Your task to perform on an android device: Clear the cart on target. Add "logitech g933" to the cart on target, then select checkout. Image 0: 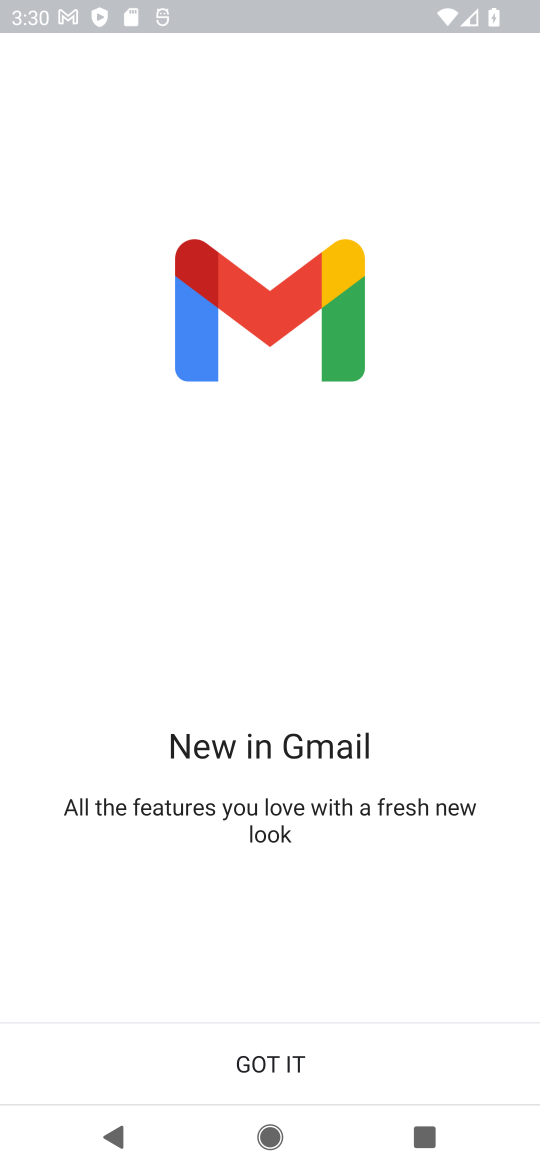
Step 0: press home button
Your task to perform on an android device: Clear the cart on target. Add "logitech g933" to the cart on target, then select checkout. Image 1: 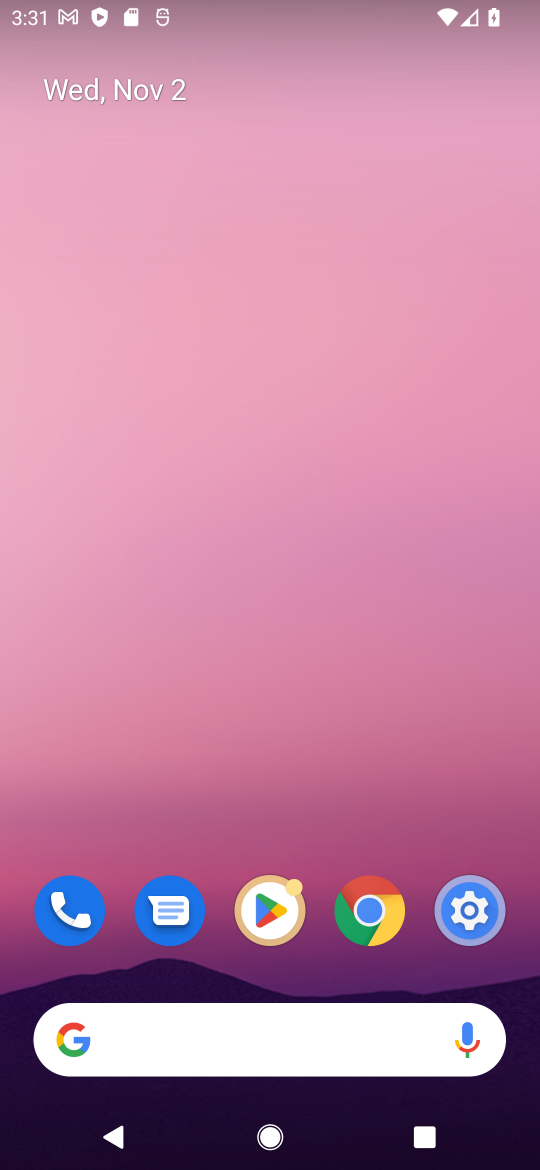
Step 1: click (238, 1032)
Your task to perform on an android device: Clear the cart on target. Add "logitech g933" to the cart on target, then select checkout. Image 2: 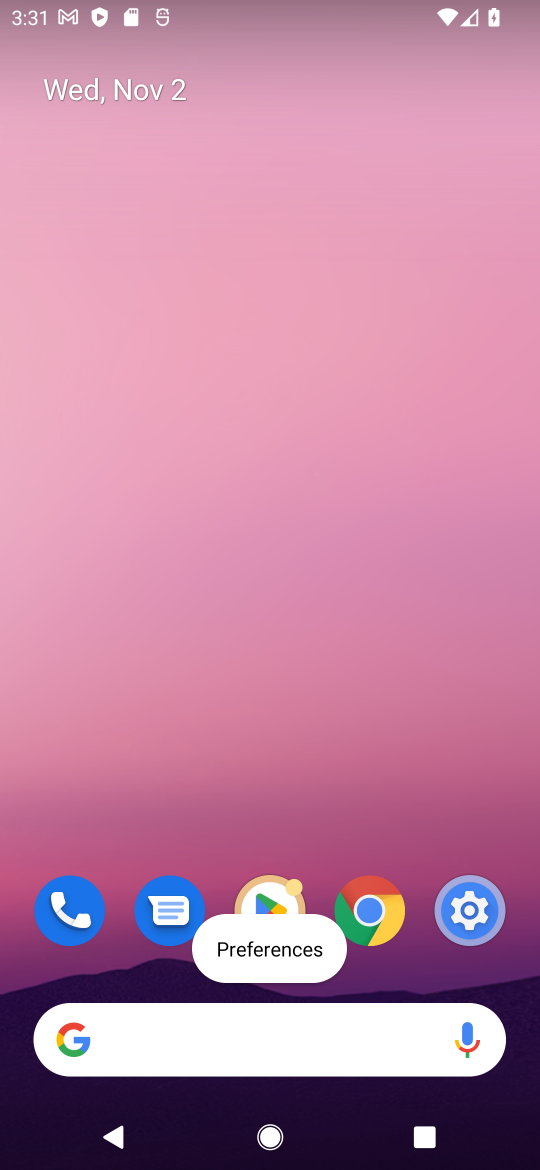
Step 2: click (229, 1043)
Your task to perform on an android device: Clear the cart on target. Add "logitech g933" to the cart on target, then select checkout. Image 3: 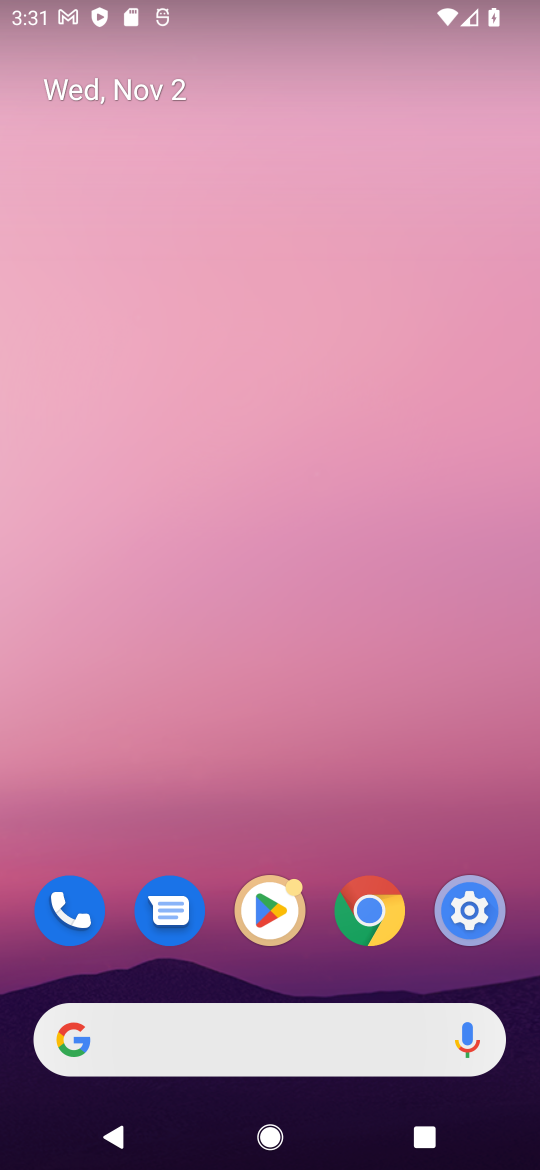
Step 3: click (229, 1043)
Your task to perform on an android device: Clear the cart on target. Add "logitech g933" to the cart on target, then select checkout. Image 4: 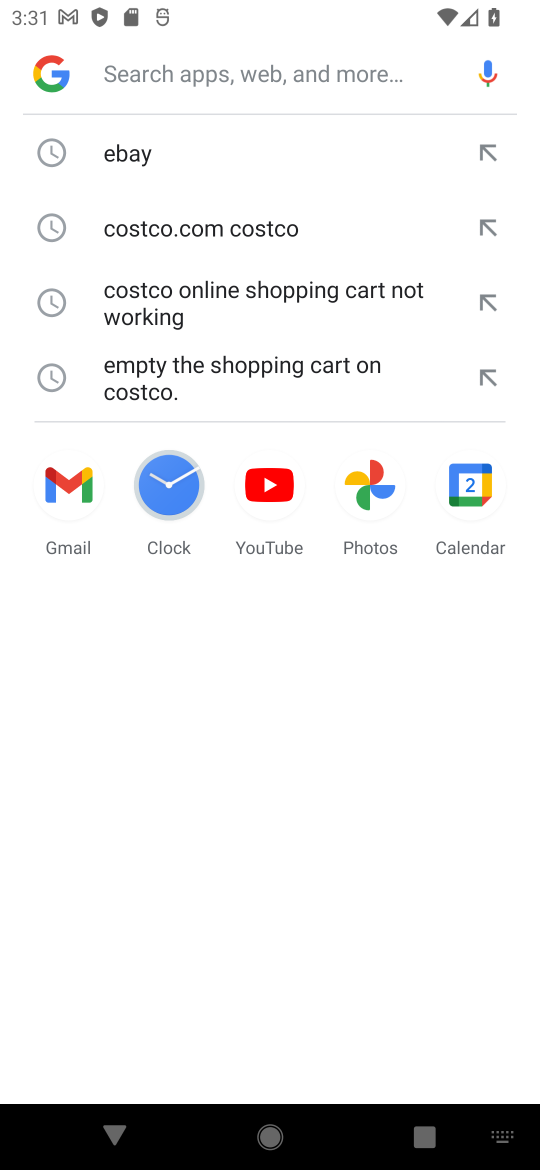
Step 4: type " target"
Your task to perform on an android device: Clear the cart on target. Add "logitech g933" to the cart on target, then select checkout. Image 5: 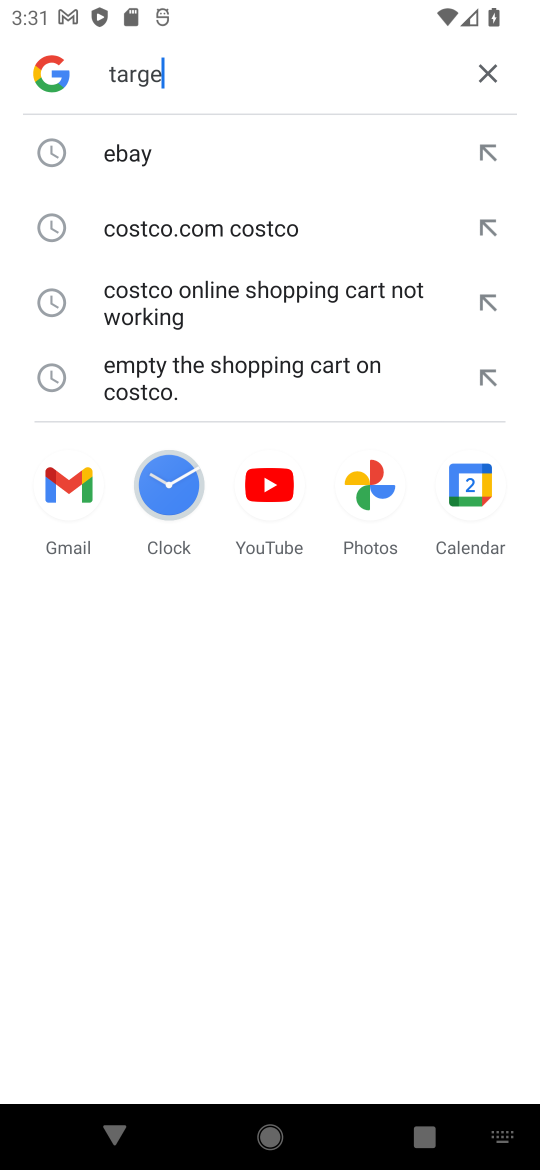
Step 5: type ""
Your task to perform on an android device: Clear the cart on target. Add "logitech g933" to the cart on target, then select checkout. Image 6: 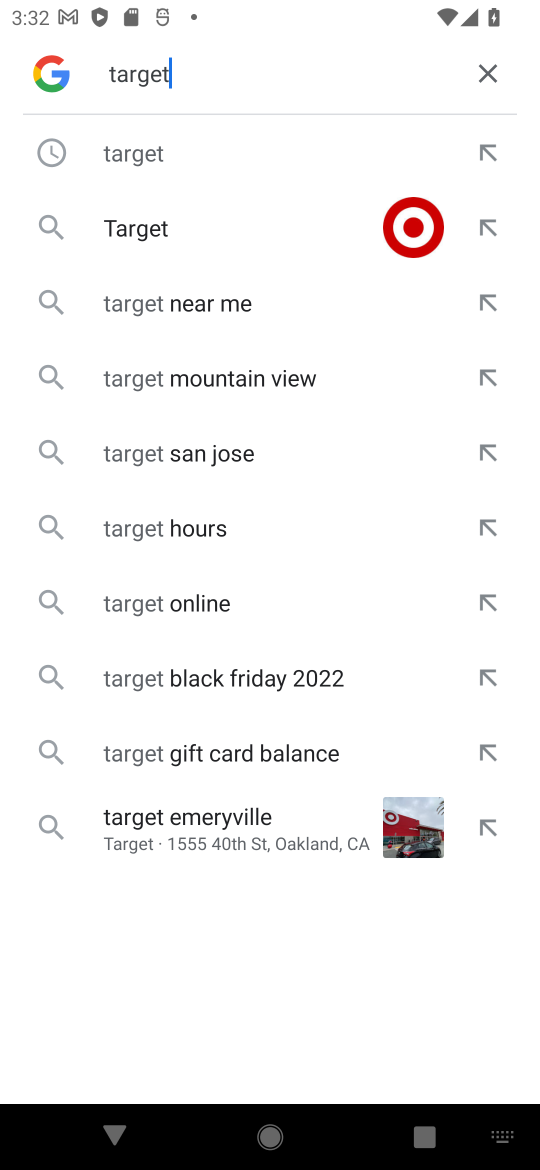
Step 6: press enter
Your task to perform on an android device: Clear the cart on target. Add "logitech g933" to the cart on target, then select checkout. Image 7: 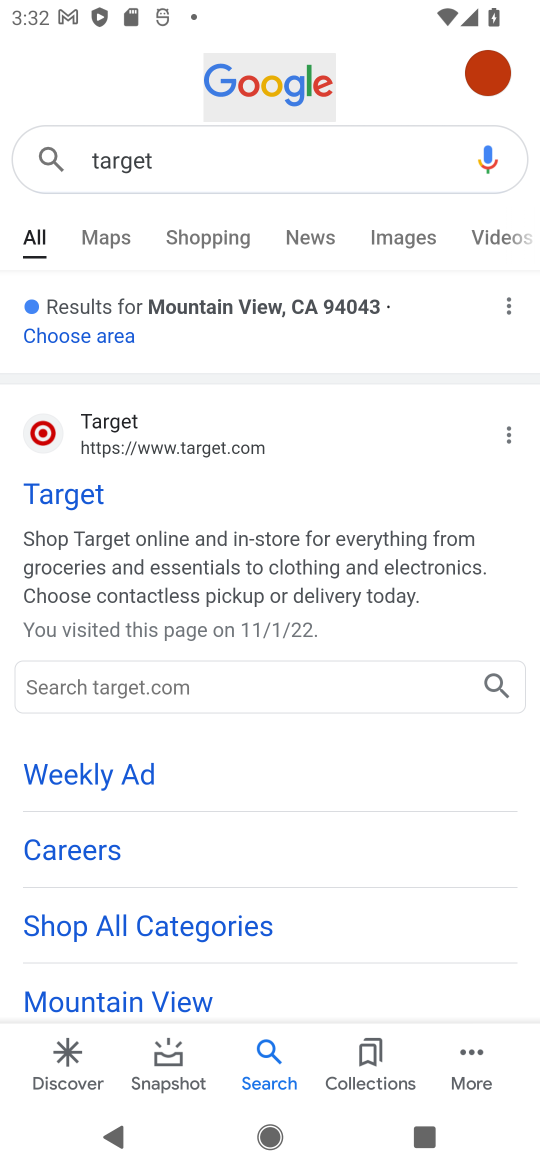
Step 7: click (99, 491)
Your task to perform on an android device: Clear the cart on target. Add "logitech g933" to the cart on target, then select checkout. Image 8: 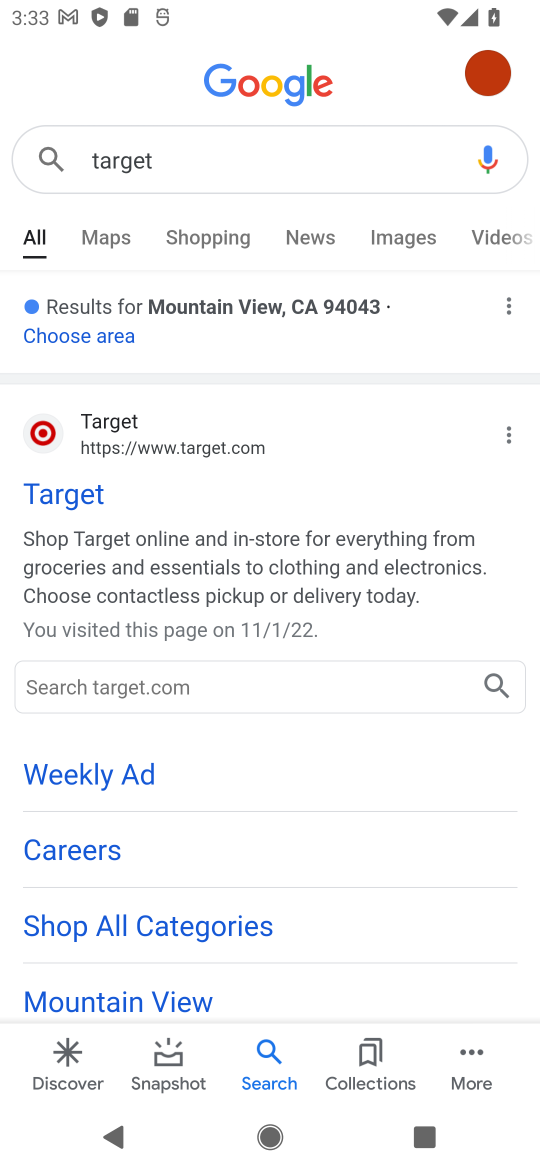
Step 8: click (120, 448)
Your task to perform on an android device: Clear the cart on target. Add "logitech g933" to the cart on target, then select checkout. Image 9: 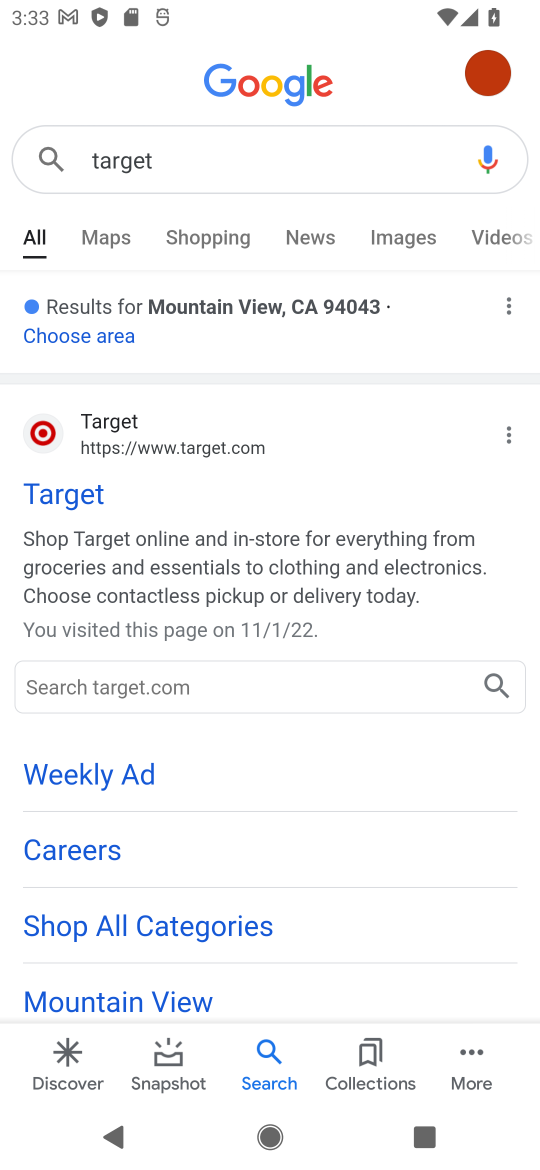
Step 9: click (120, 448)
Your task to perform on an android device: Clear the cart on target. Add "logitech g933" to the cart on target, then select checkout. Image 10: 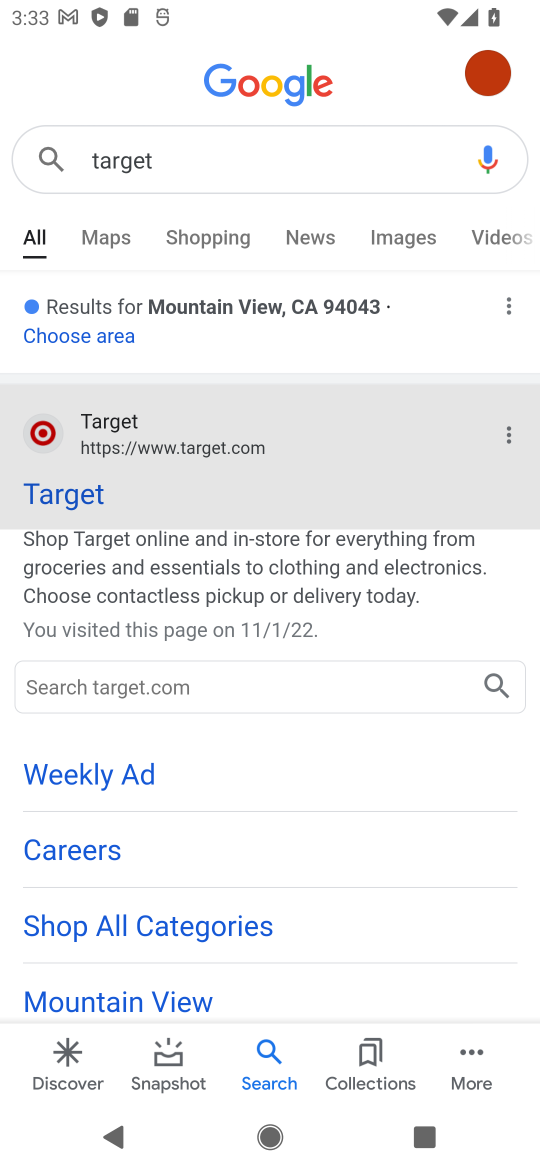
Step 10: click (120, 448)
Your task to perform on an android device: Clear the cart on target. Add "logitech g933" to the cart on target, then select checkout. Image 11: 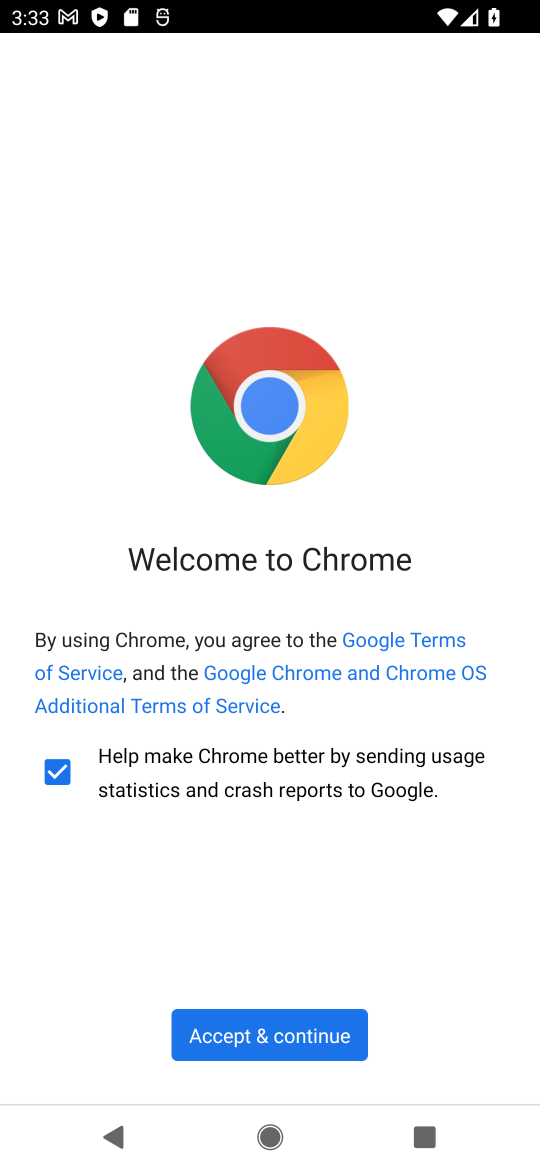
Step 11: click (320, 1036)
Your task to perform on an android device: Clear the cart on target. Add "logitech g933" to the cart on target, then select checkout. Image 12: 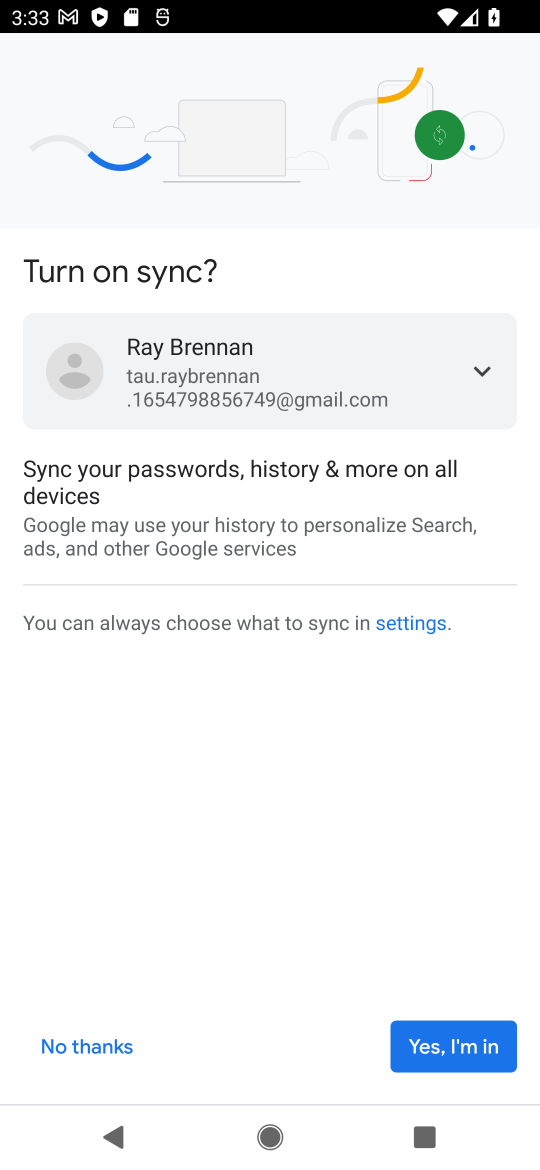
Step 12: click (408, 1049)
Your task to perform on an android device: Clear the cart on target. Add "logitech g933" to the cart on target, then select checkout. Image 13: 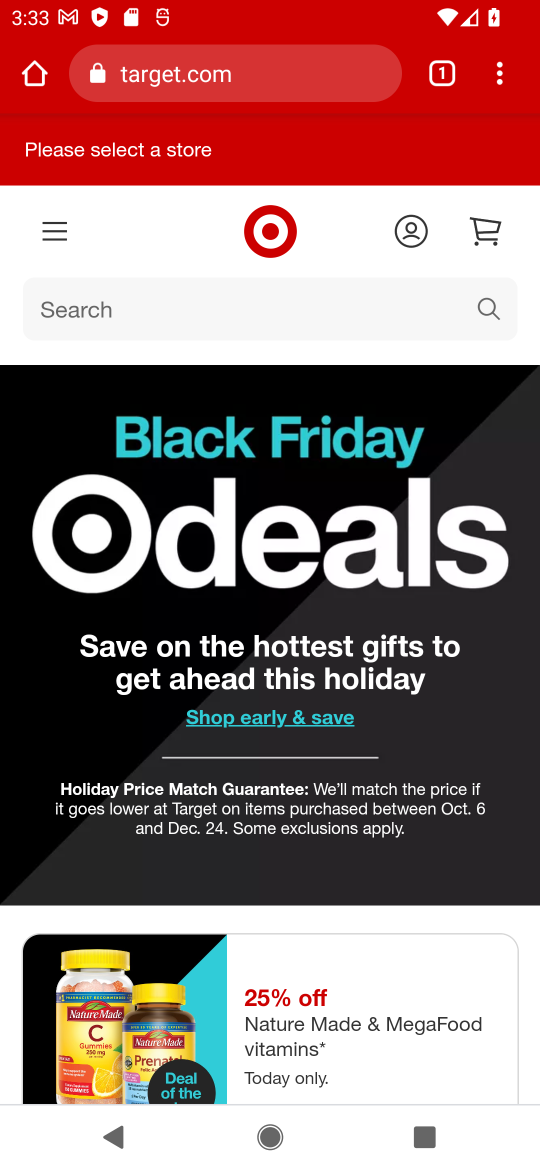
Step 13: click (192, 316)
Your task to perform on an android device: Clear the cart on target. Add "logitech g933" to the cart on target, then select checkout. Image 14: 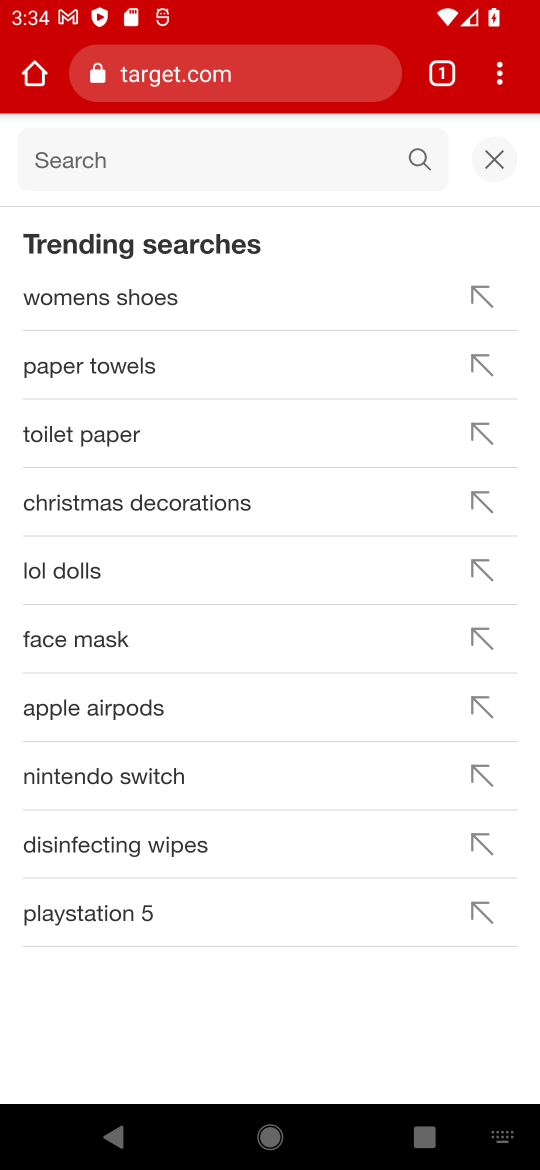
Step 14: type "logitech g933"
Your task to perform on an android device: Clear the cart on target. Add "logitech g933" to the cart on target, then select checkout. Image 15: 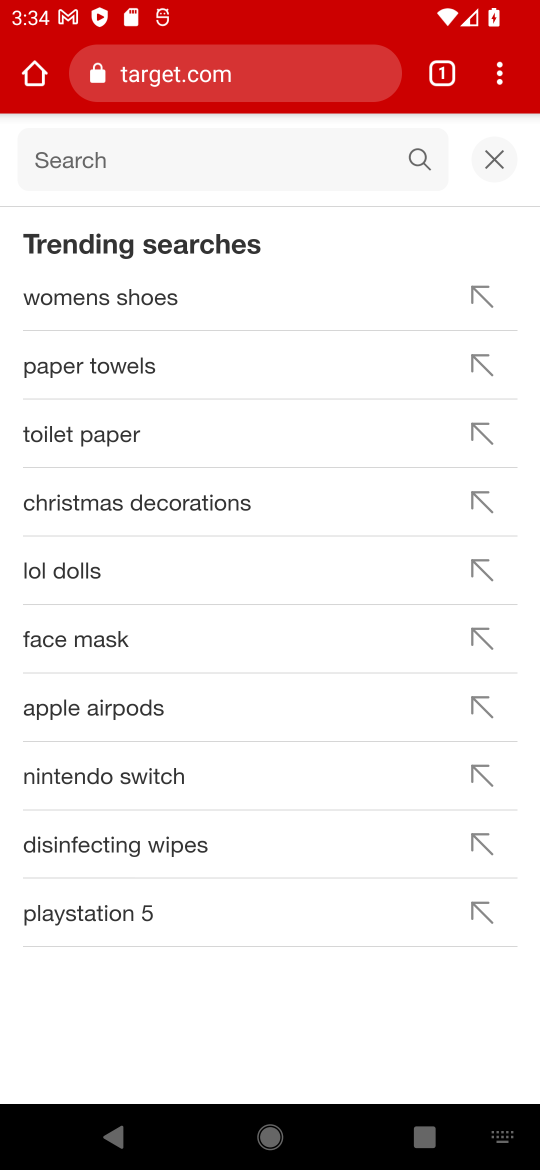
Step 15: type ""
Your task to perform on an android device: Clear the cart on target. Add "logitech g933" to the cart on target, then select checkout. Image 16: 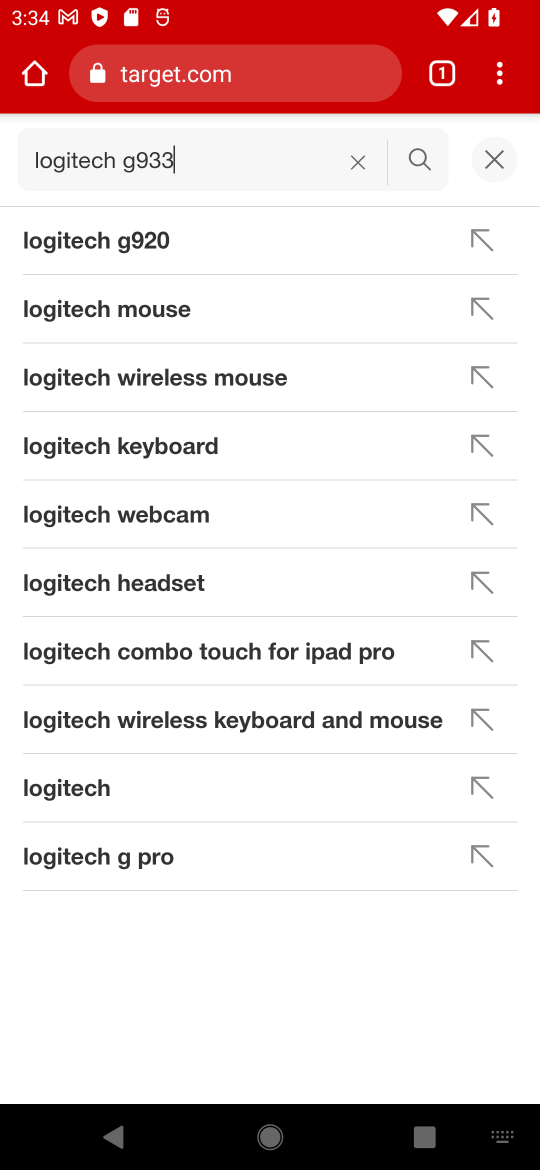
Step 16: press enter
Your task to perform on an android device: Clear the cart on target. Add "logitech g933" to the cart on target, then select checkout. Image 17: 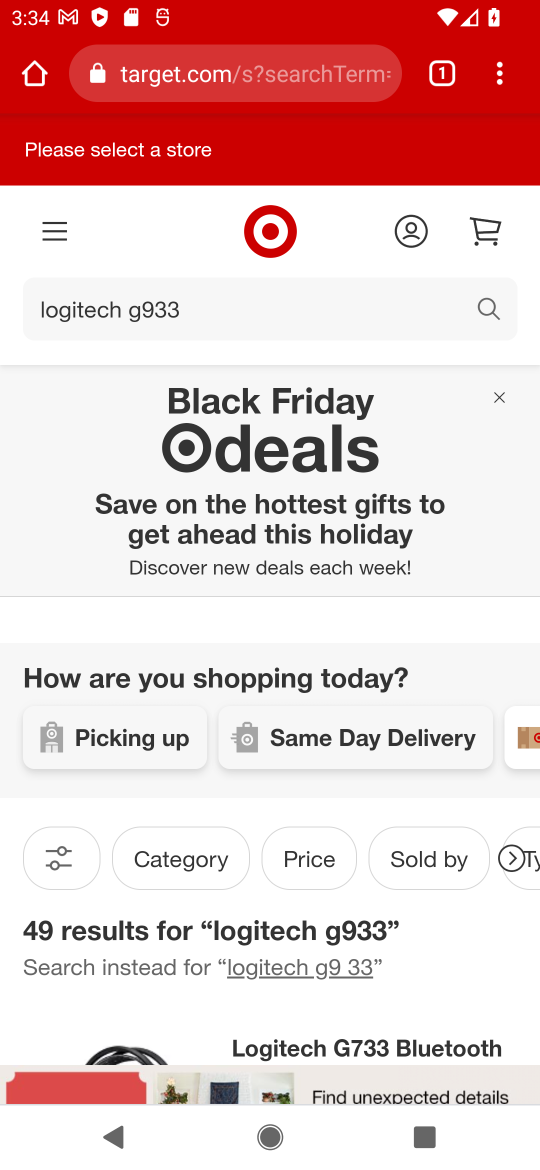
Step 17: drag from (402, 932) to (323, 488)
Your task to perform on an android device: Clear the cart on target. Add "logitech g933" to the cart on target, then select checkout. Image 18: 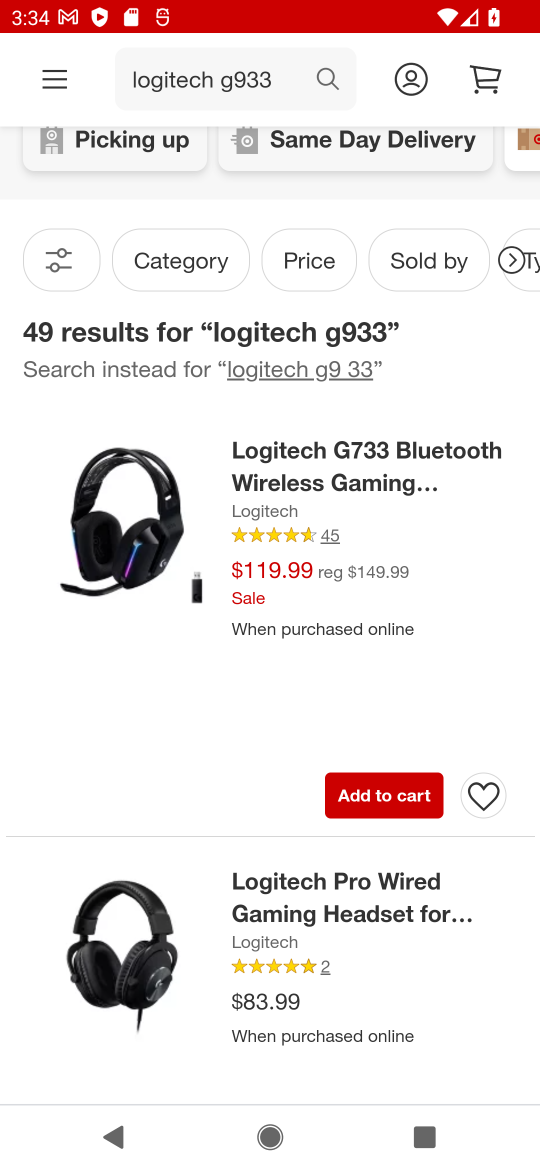
Step 18: click (387, 792)
Your task to perform on an android device: Clear the cart on target. Add "logitech g933" to the cart on target, then select checkout. Image 19: 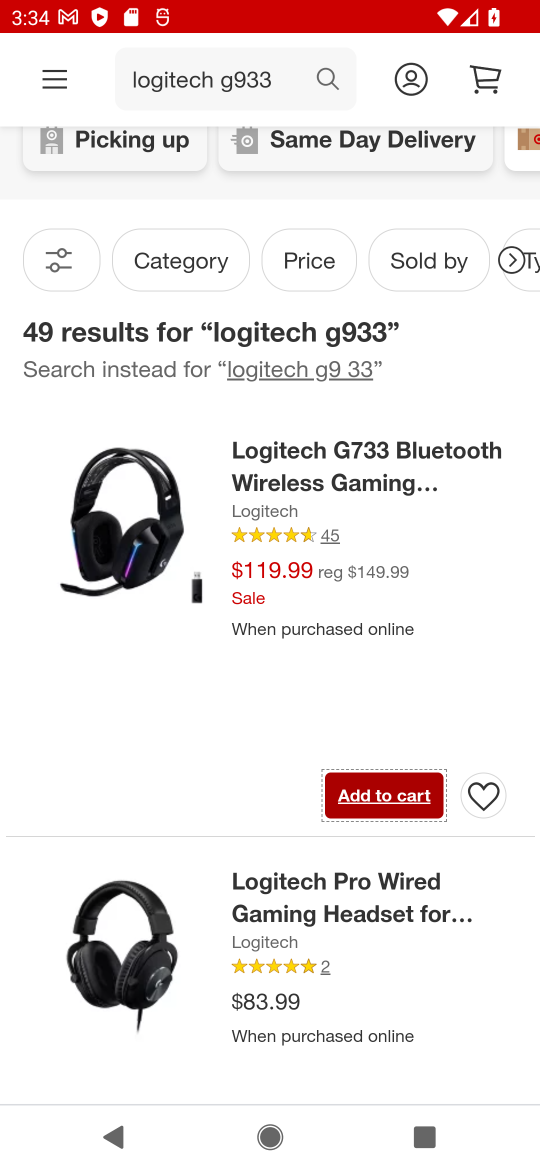
Step 19: click (387, 792)
Your task to perform on an android device: Clear the cart on target. Add "logitech g933" to the cart on target, then select checkout. Image 20: 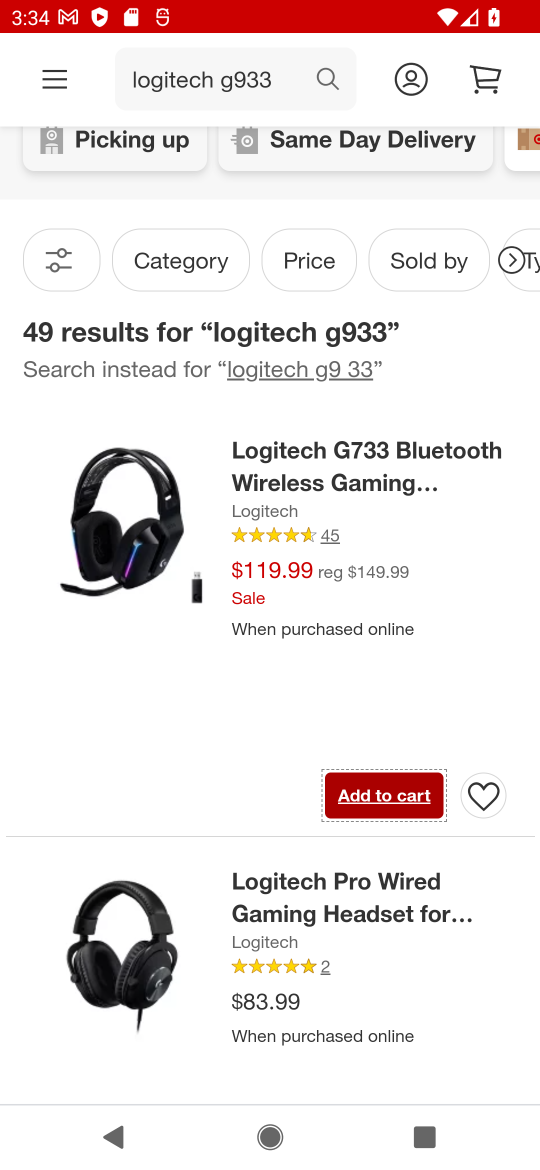
Step 20: click (387, 792)
Your task to perform on an android device: Clear the cart on target. Add "logitech g933" to the cart on target, then select checkout. Image 21: 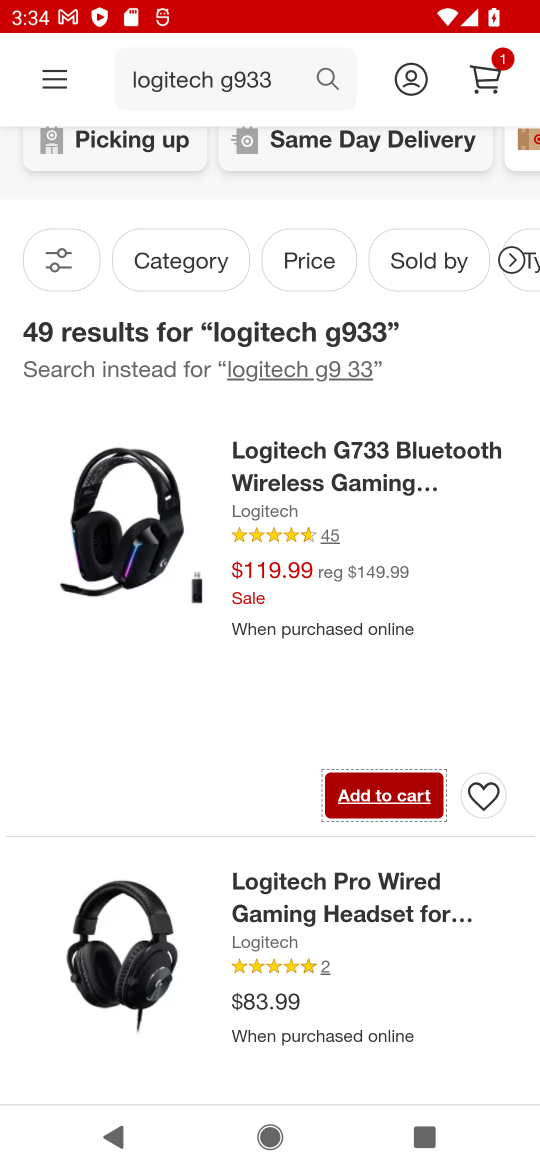
Step 21: click (373, 806)
Your task to perform on an android device: Clear the cart on target. Add "logitech g933" to the cart on target, then select checkout. Image 22: 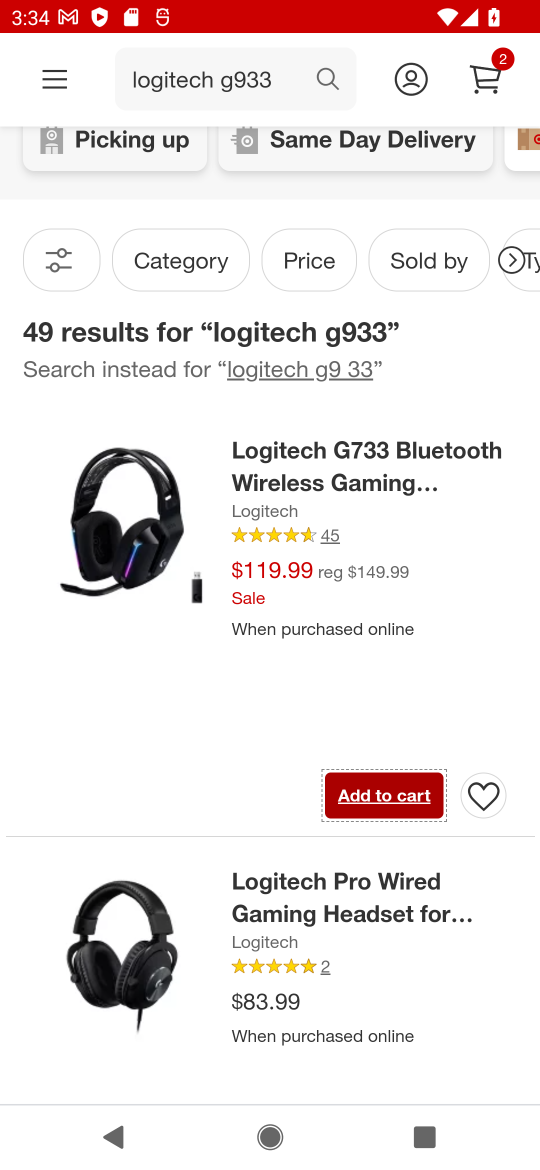
Step 22: click (490, 77)
Your task to perform on an android device: Clear the cart on target. Add "logitech g933" to the cart on target, then select checkout. Image 23: 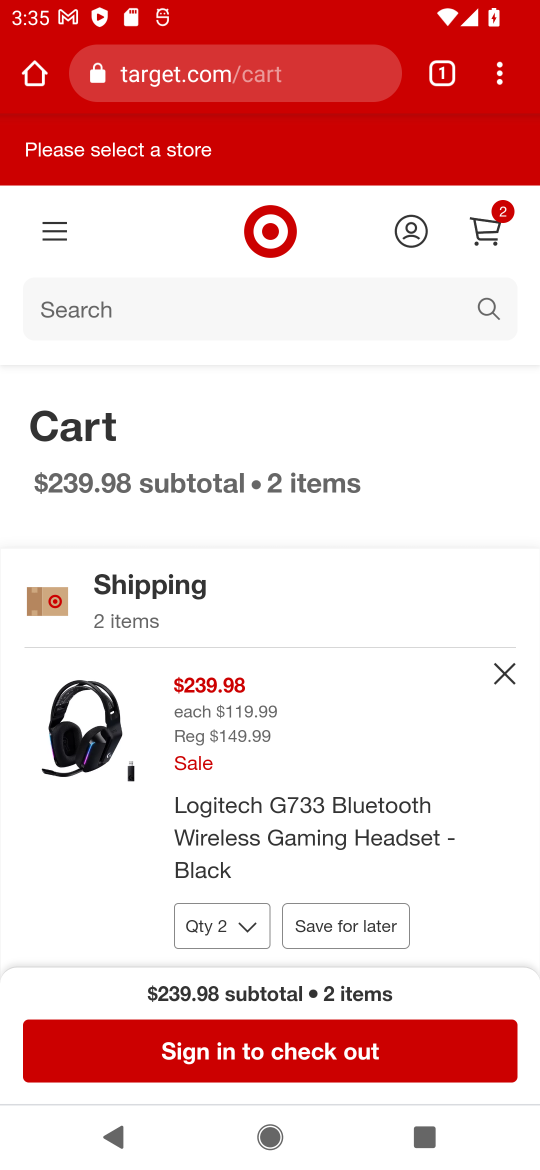
Step 23: drag from (385, 956) to (351, 723)
Your task to perform on an android device: Clear the cart on target. Add "logitech g933" to the cart on target, then select checkout. Image 24: 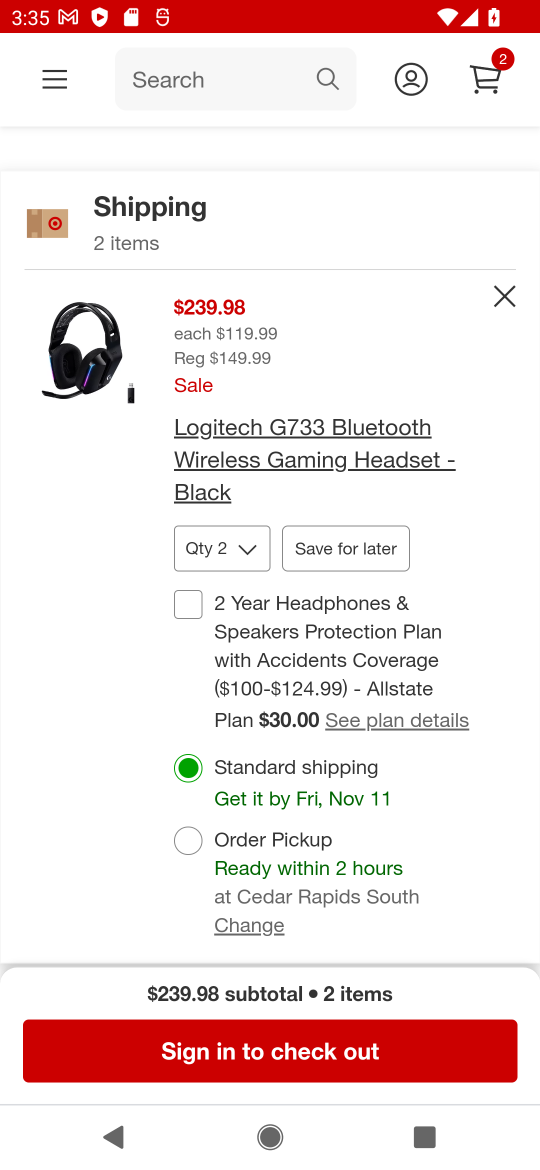
Step 24: click (342, 1046)
Your task to perform on an android device: Clear the cart on target. Add "logitech g933" to the cart on target, then select checkout. Image 25: 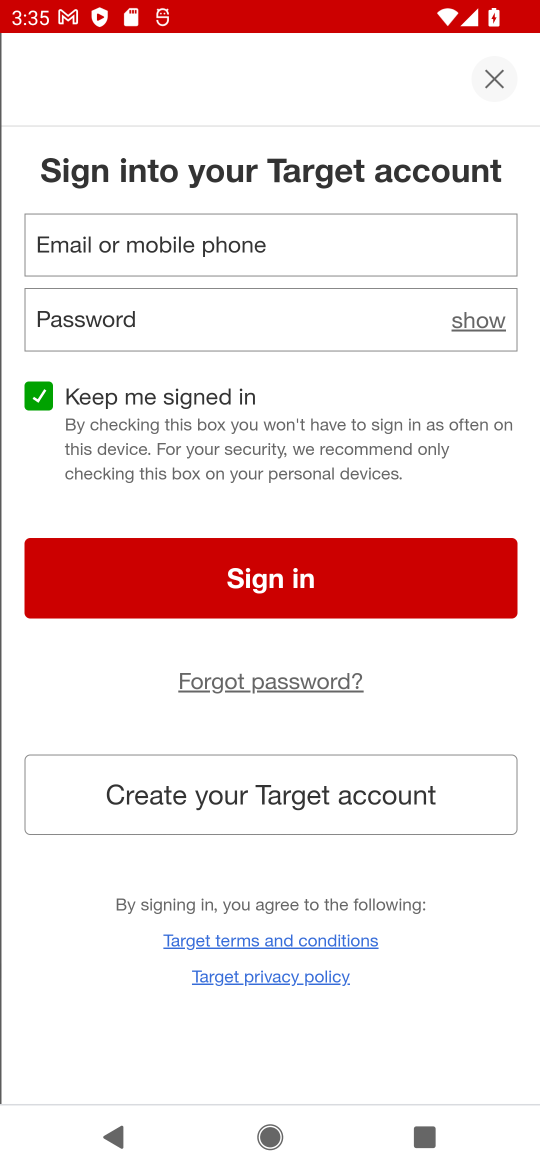
Step 25: task complete